Your task to perform on an android device: Empty the shopping cart on amazon.com. Search for "usb-a" on amazon.com, select the first entry, add it to the cart, then select checkout. Image 0: 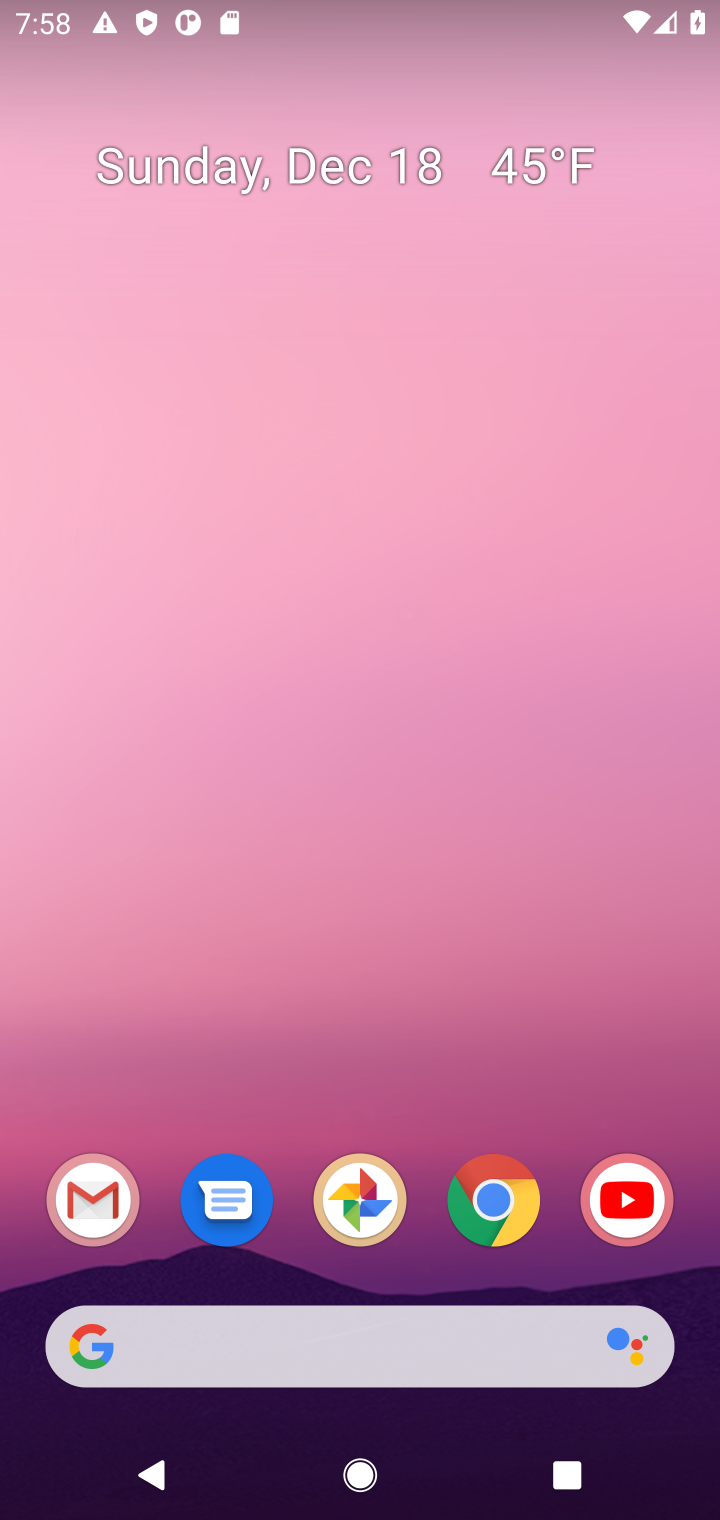
Step 0: click (500, 1214)
Your task to perform on an android device: Empty the shopping cart on amazon.com. Search for "usb-a" on amazon.com, select the first entry, add it to the cart, then select checkout. Image 1: 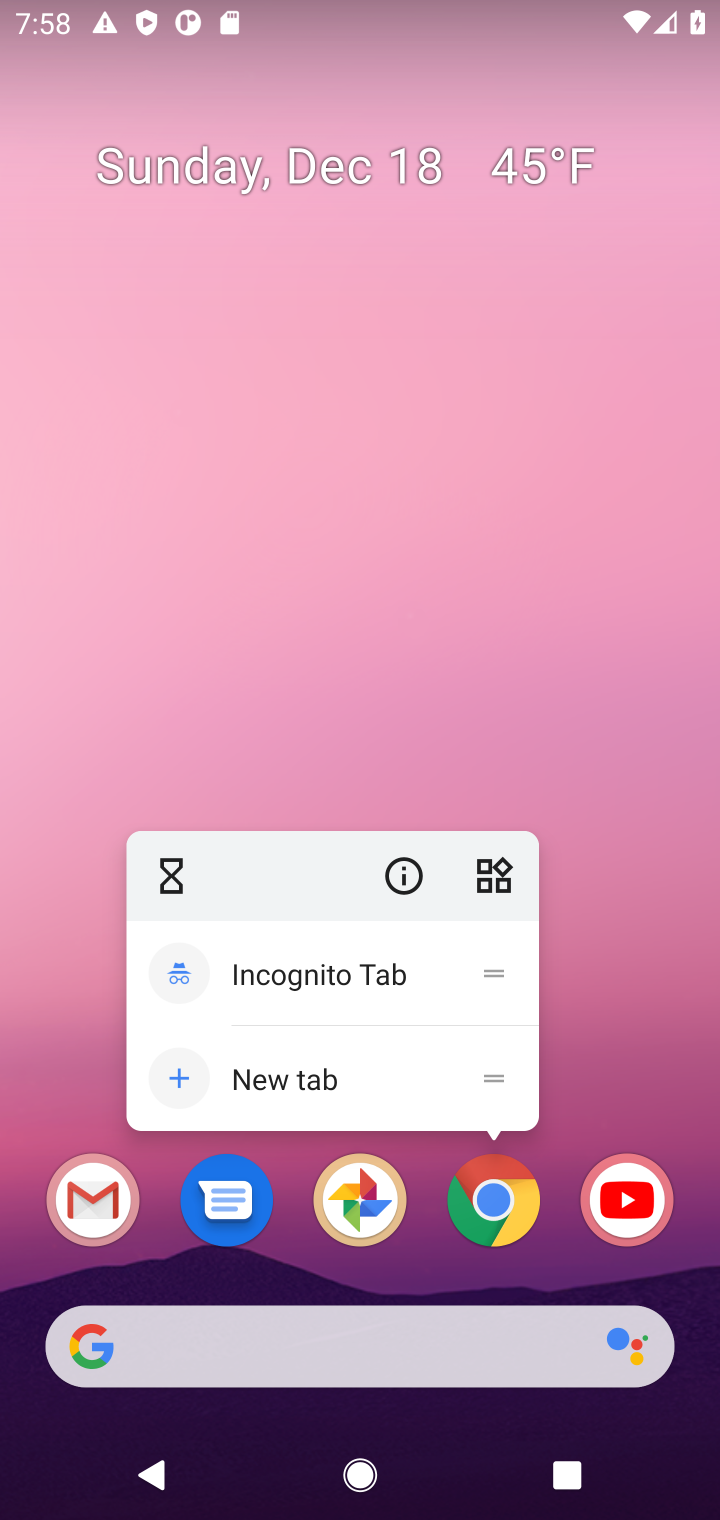
Step 1: click (500, 1214)
Your task to perform on an android device: Empty the shopping cart on amazon.com. Search for "usb-a" on amazon.com, select the first entry, add it to the cart, then select checkout. Image 2: 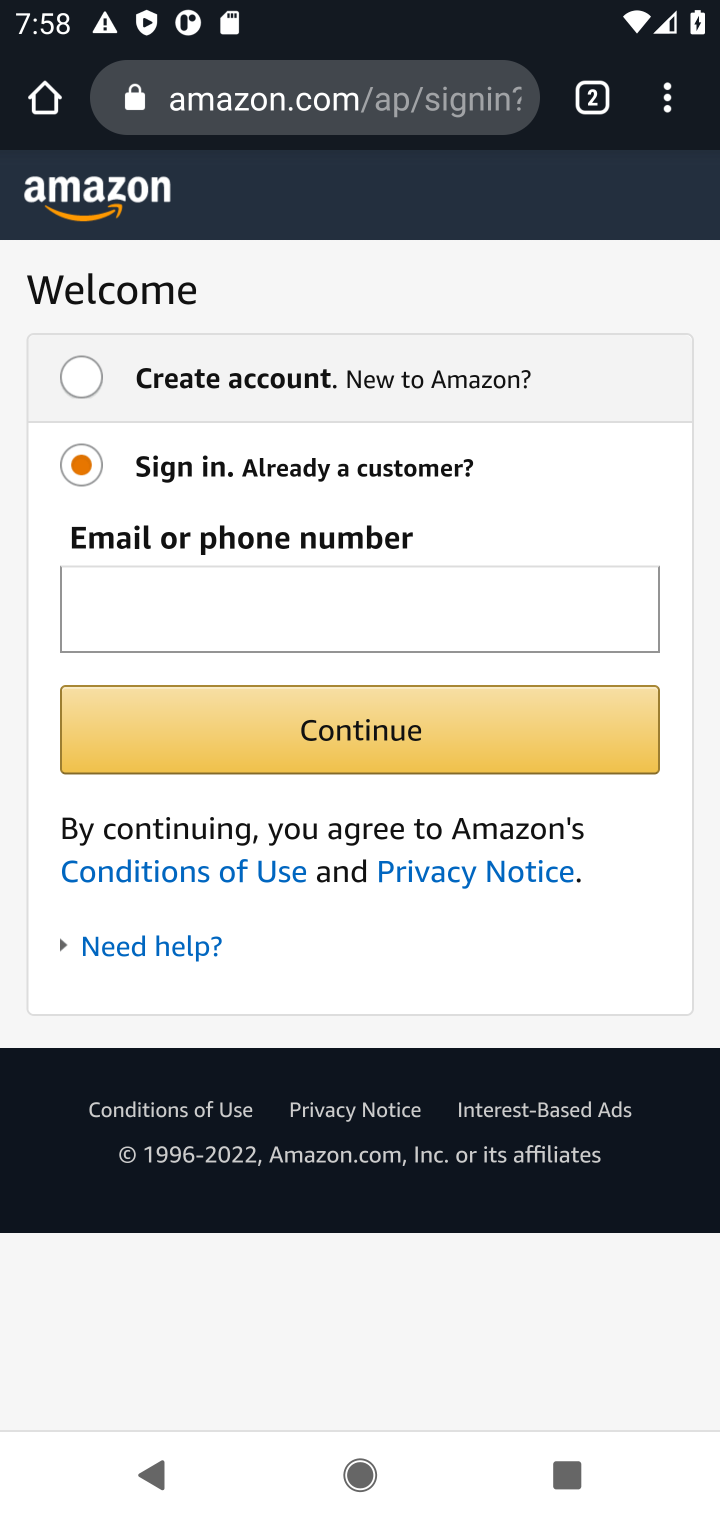
Step 2: press back button
Your task to perform on an android device: Empty the shopping cart on amazon.com. Search for "usb-a" on amazon.com, select the first entry, add it to the cart, then select checkout. Image 3: 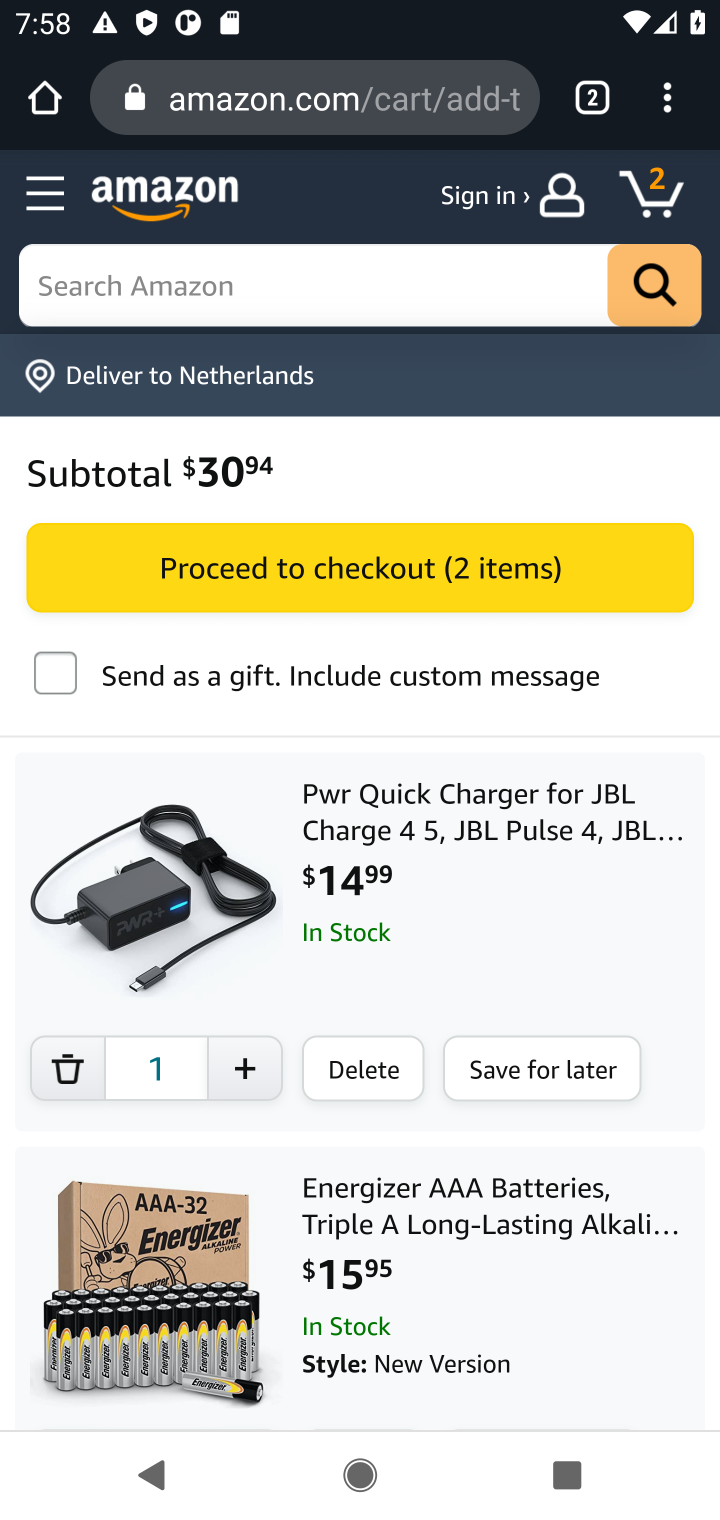
Step 3: click (352, 1071)
Your task to perform on an android device: Empty the shopping cart on amazon.com. Search for "usb-a" on amazon.com, select the first entry, add it to the cart, then select checkout. Image 4: 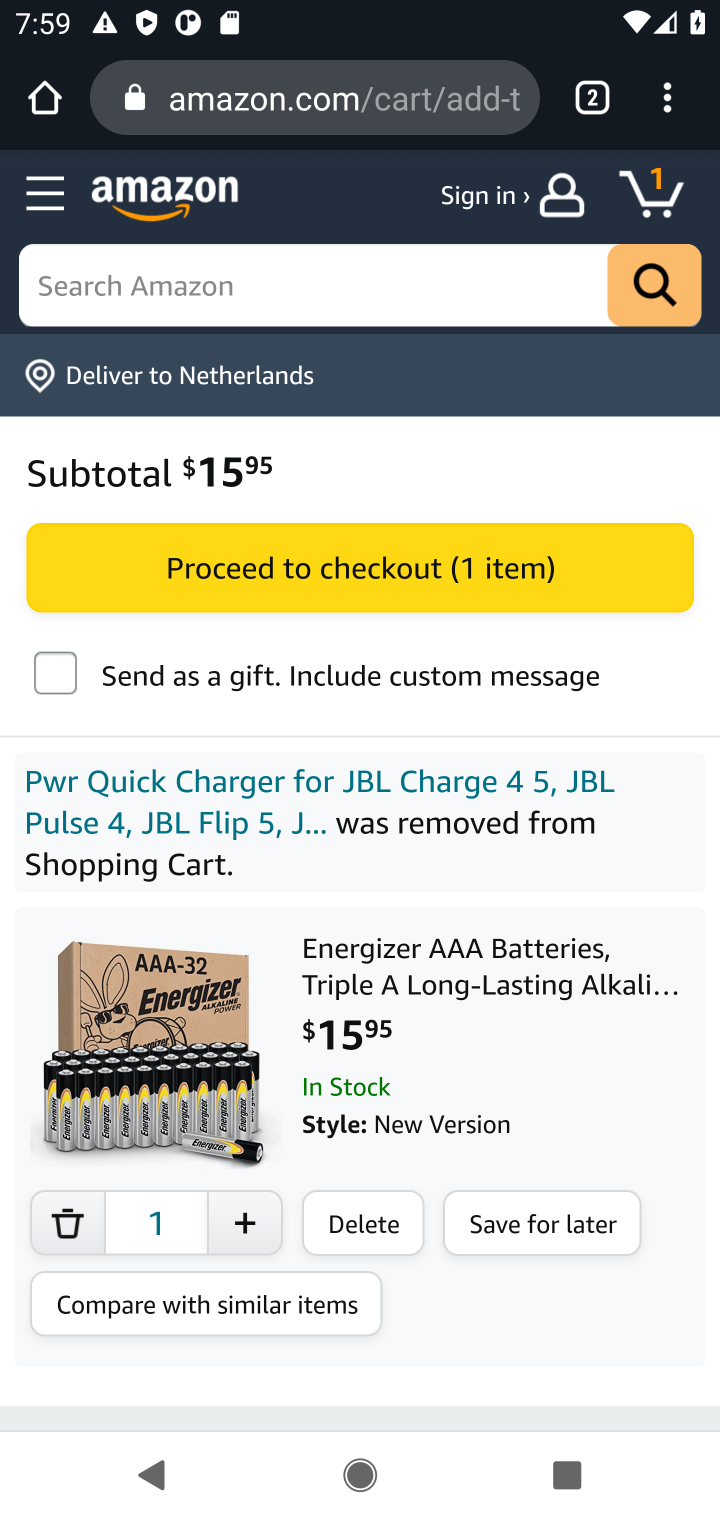
Step 4: click (350, 1214)
Your task to perform on an android device: Empty the shopping cart on amazon.com. Search for "usb-a" on amazon.com, select the first entry, add it to the cart, then select checkout. Image 5: 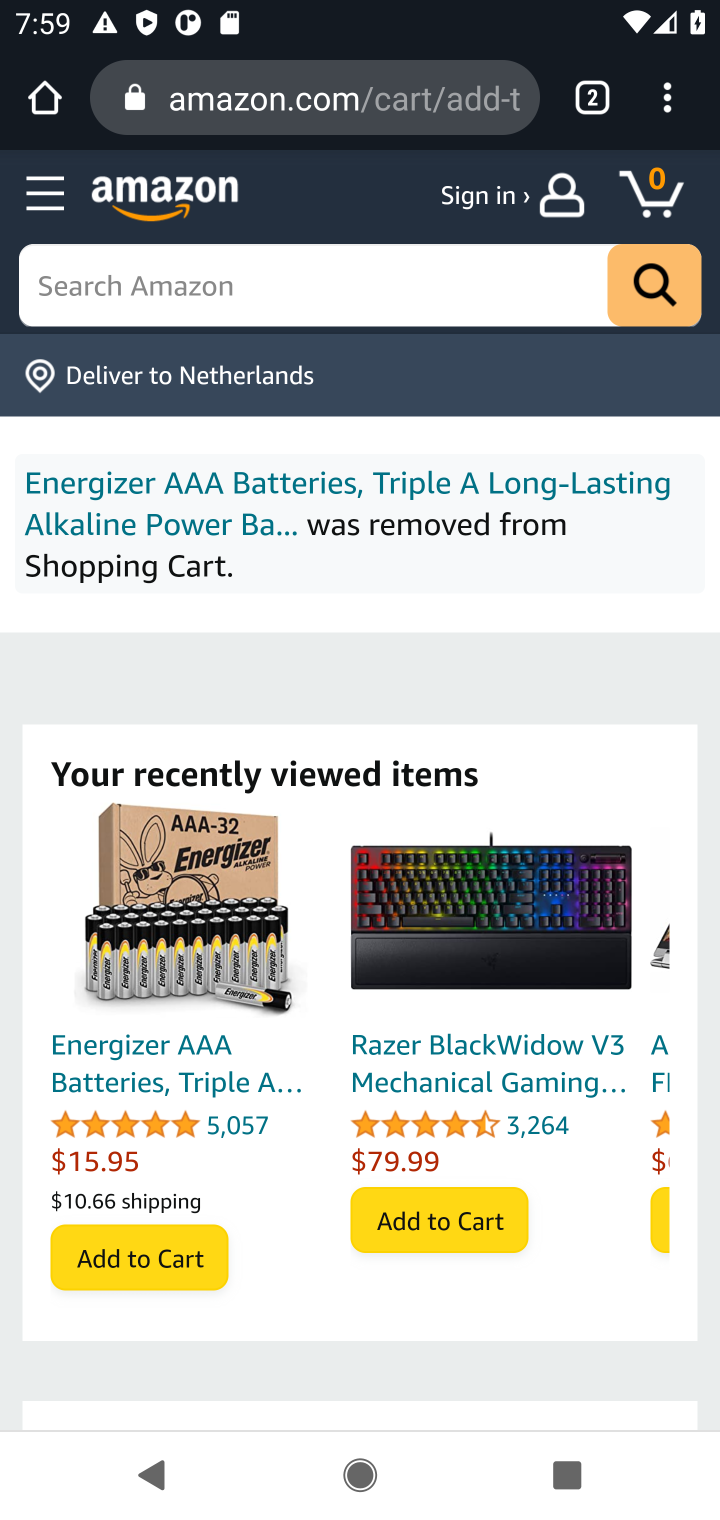
Step 5: click (232, 298)
Your task to perform on an android device: Empty the shopping cart on amazon.com. Search for "usb-a" on amazon.com, select the first entry, add it to the cart, then select checkout. Image 6: 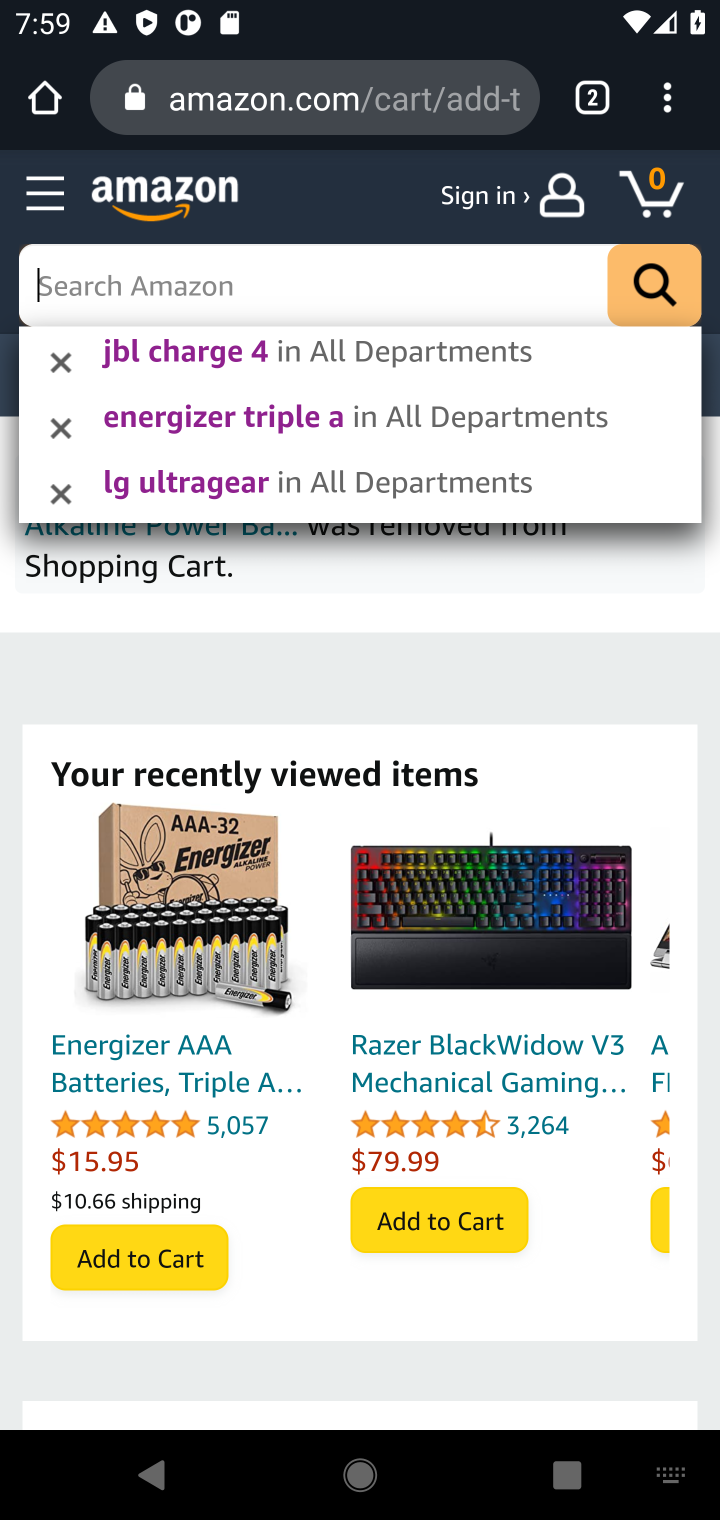
Step 6: type "usb-a"
Your task to perform on an android device: Empty the shopping cart on amazon.com. Search for "usb-a" on amazon.com, select the first entry, add it to the cart, then select checkout. Image 7: 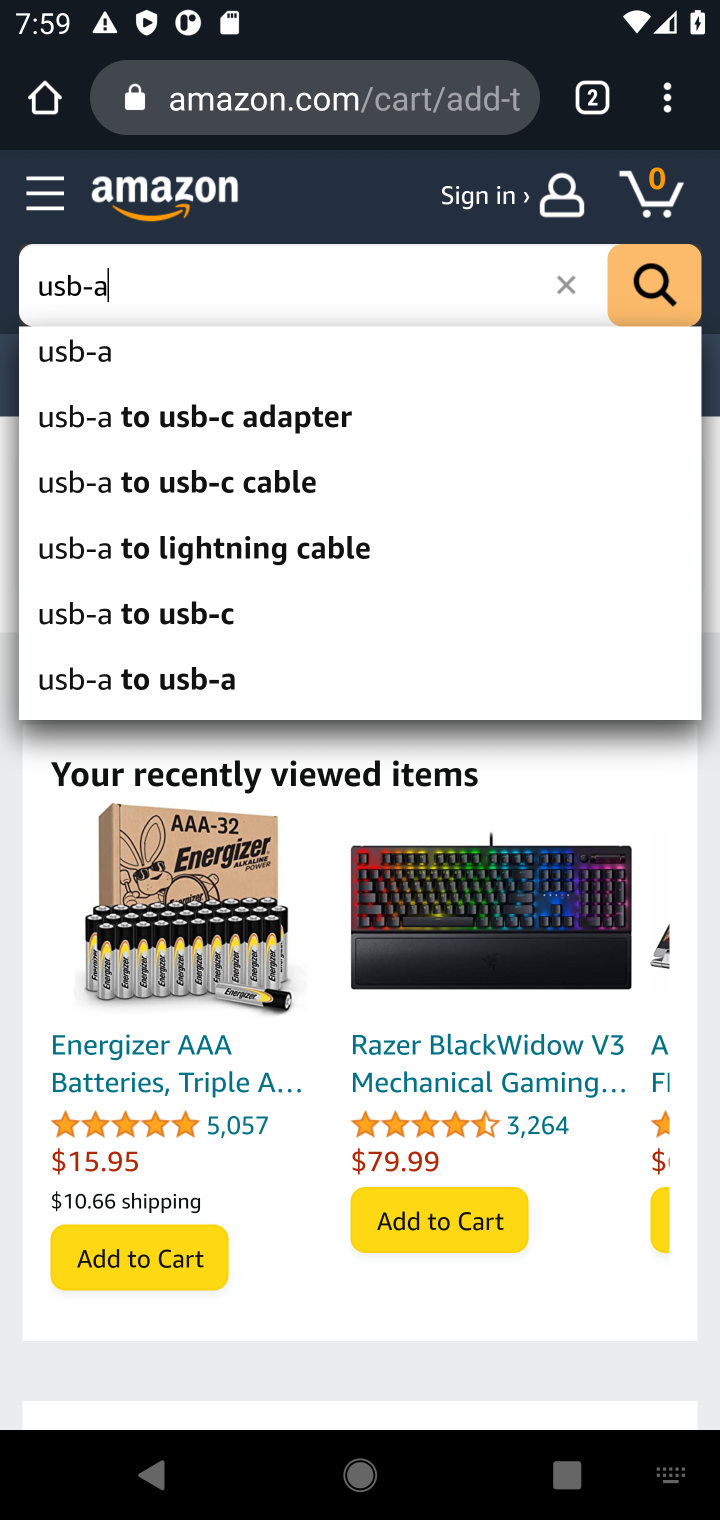
Step 7: click (53, 361)
Your task to perform on an android device: Empty the shopping cart on amazon.com. Search for "usb-a" on amazon.com, select the first entry, add it to the cart, then select checkout. Image 8: 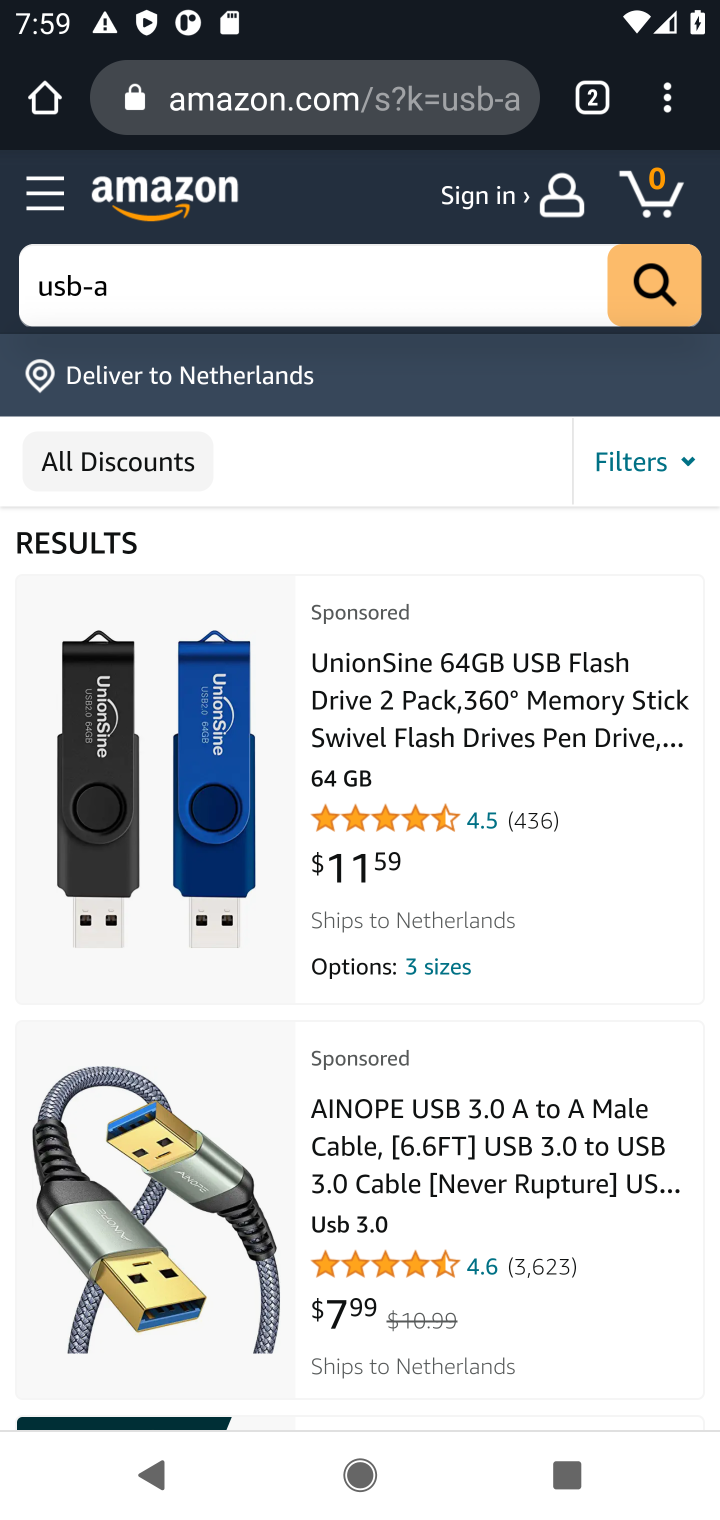
Step 8: click (481, 733)
Your task to perform on an android device: Empty the shopping cart on amazon.com. Search for "usb-a" on amazon.com, select the first entry, add it to the cart, then select checkout. Image 9: 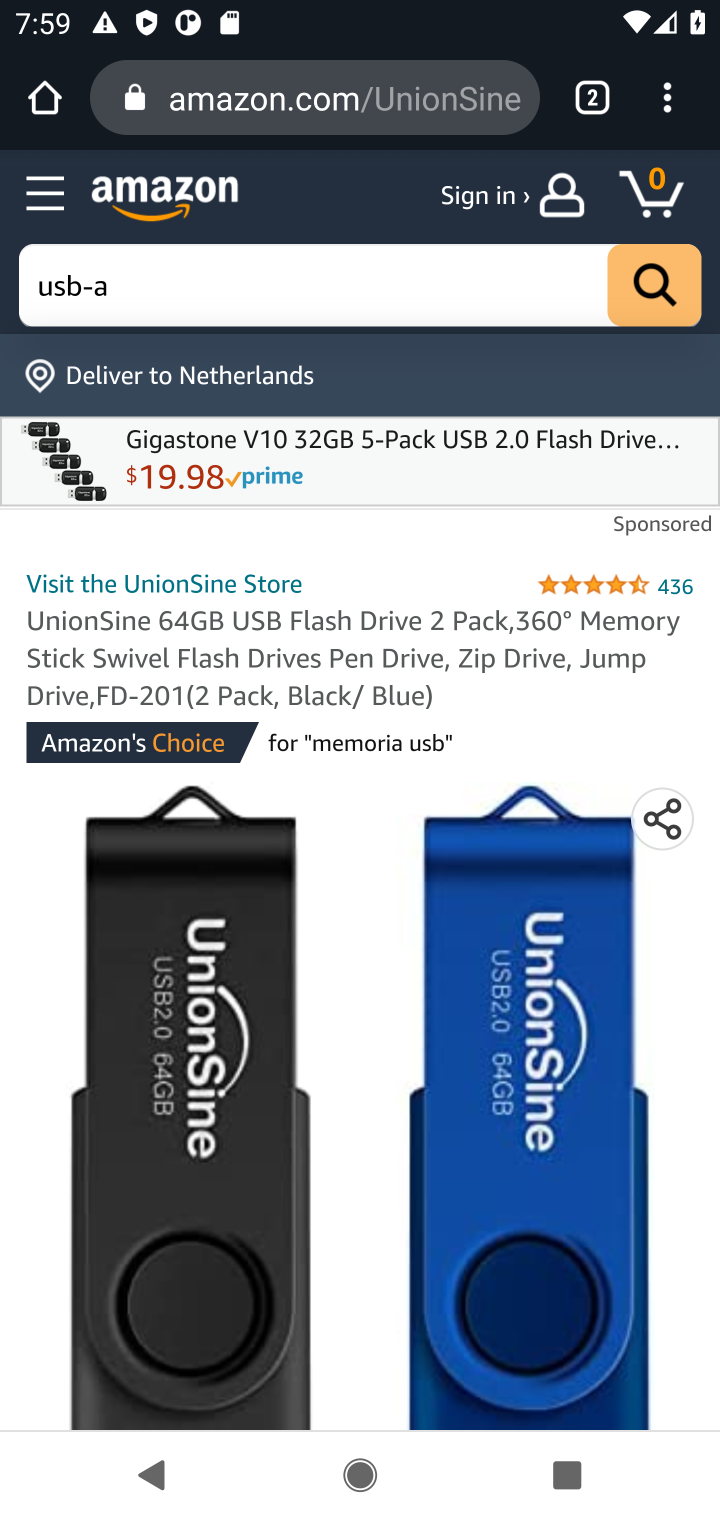
Step 9: task complete